Your task to perform on an android device: check data usage Image 0: 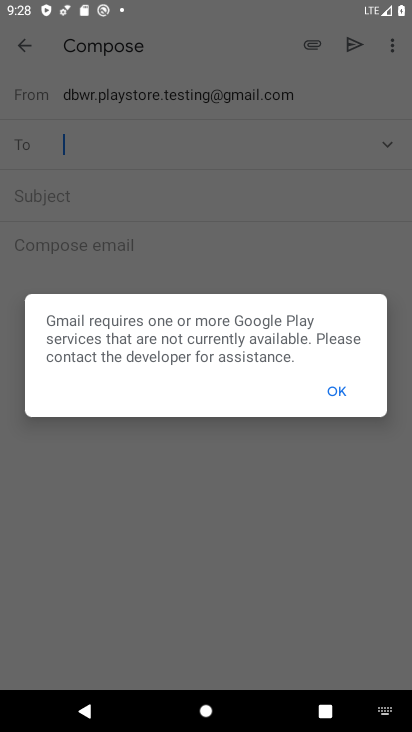
Step 0: press home button
Your task to perform on an android device: check data usage Image 1: 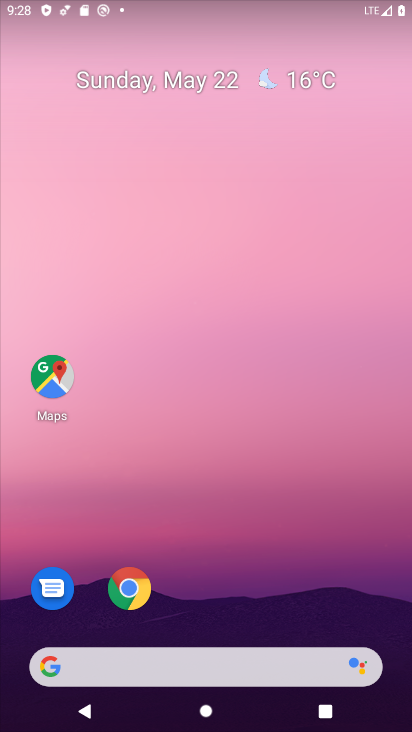
Step 1: drag from (184, 614) to (201, 184)
Your task to perform on an android device: check data usage Image 2: 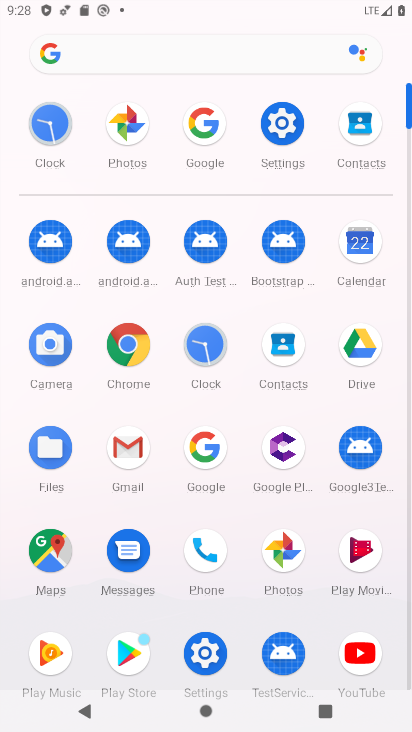
Step 2: click (272, 134)
Your task to perform on an android device: check data usage Image 3: 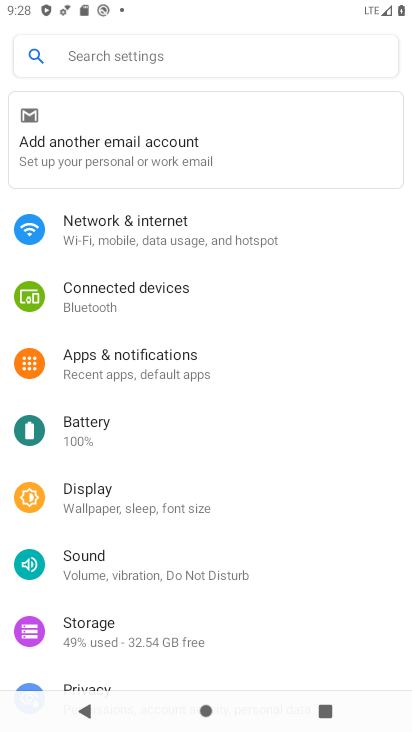
Step 3: drag from (157, 617) to (159, 465)
Your task to perform on an android device: check data usage Image 4: 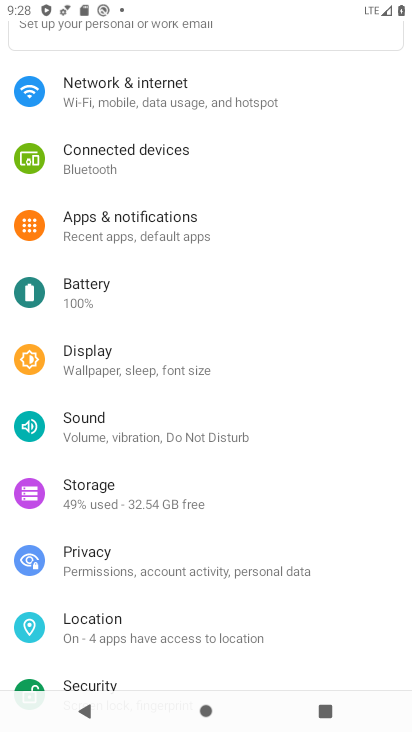
Step 4: click (170, 108)
Your task to perform on an android device: check data usage Image 5: 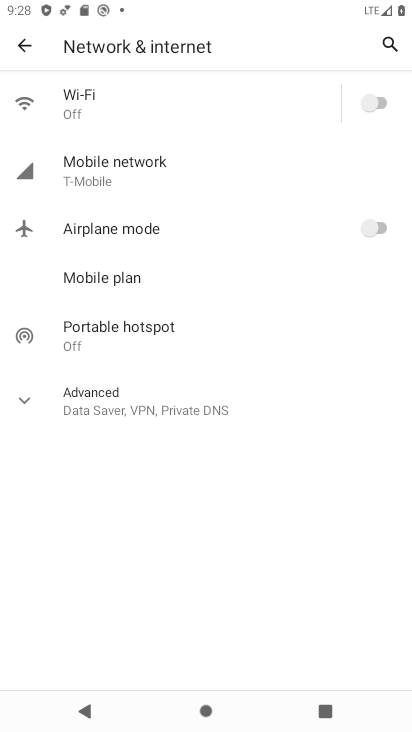
Step 5: click (178, 187)
Your task to perform on an android device: check data usage Image 6: 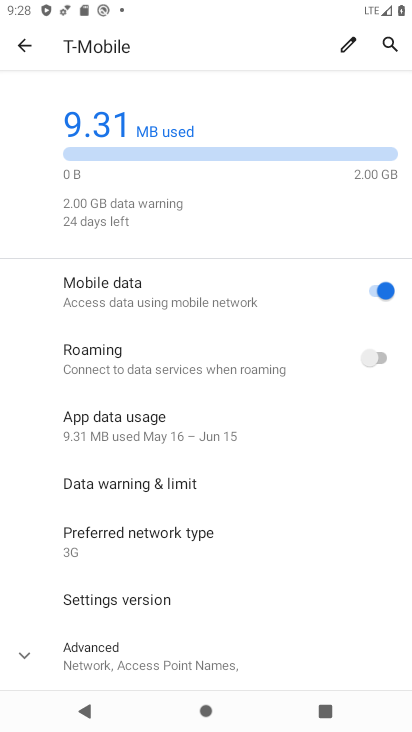
Step 6: drag from (207, 454) to (188, 331)
Your task to perform on an android device: check data usage Image 7: 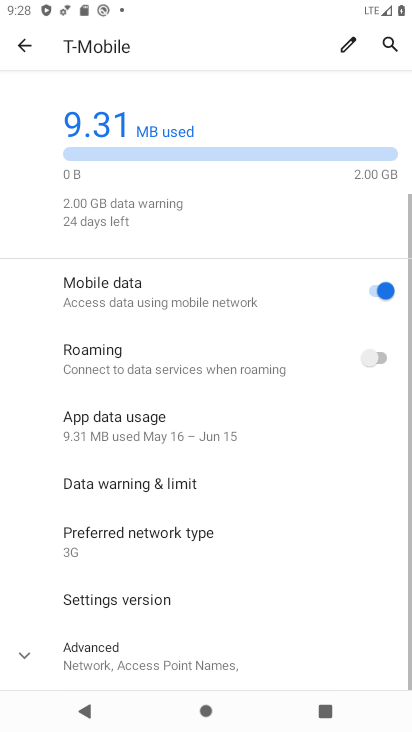
Step 7: click (169, 406)
Your task to perform on an android device: check data usage Image 8: 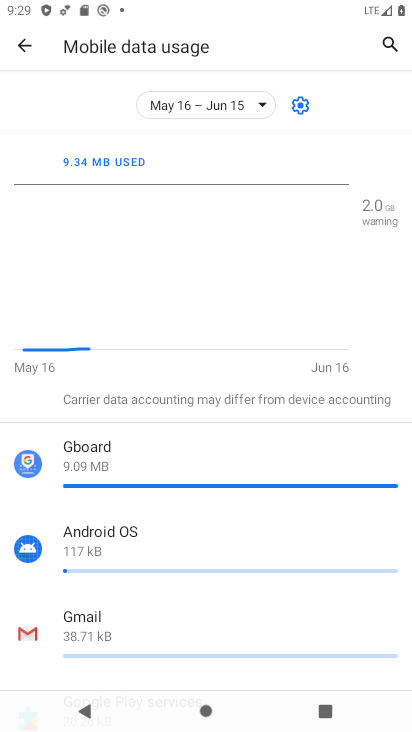
Step 8: task complete